Your task to perform on an android device: Play the last video I watched on Youtube Image 0: 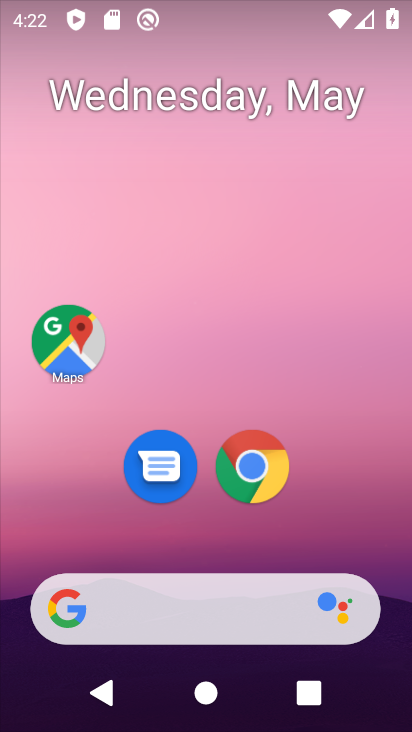
Step 0: drag from (109, 561) to (265, 147)
Your task to perform on an android device: Play the last video I watched on Youtube Image 1: 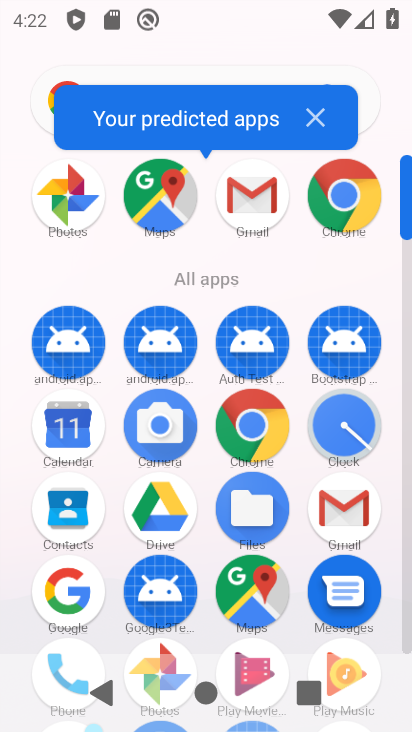
Step 1: drag from (241, 609) to (320, 356)
Your task to perform on an android device: Play the last video I watched on Youtube Image 2: 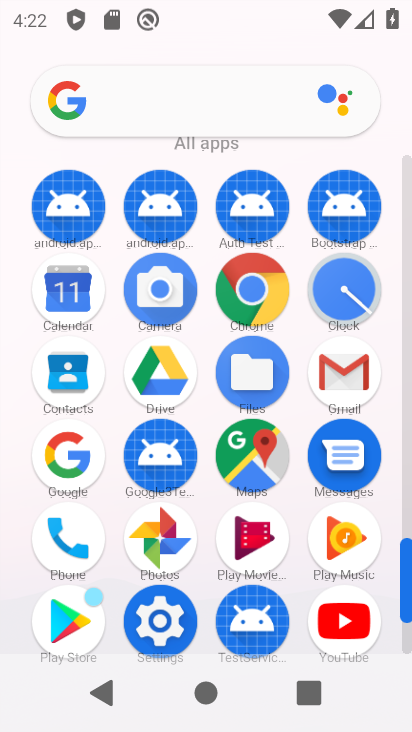
Step 2: click (359, 623)
Your task to perform on an android device: Play the last video I watched on Youtube Image 3: 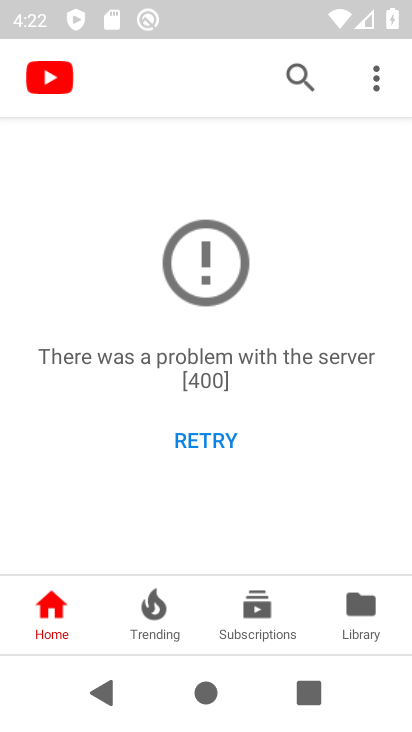
Step 3: task complete